Your task to perform on an android device: Open maps Image 0: 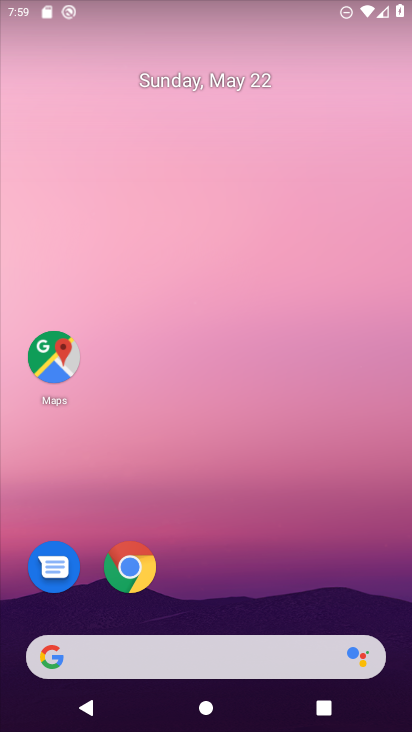
Step 0: click (46, 356)
Your task to perform on an android device: Open maps Image 1: 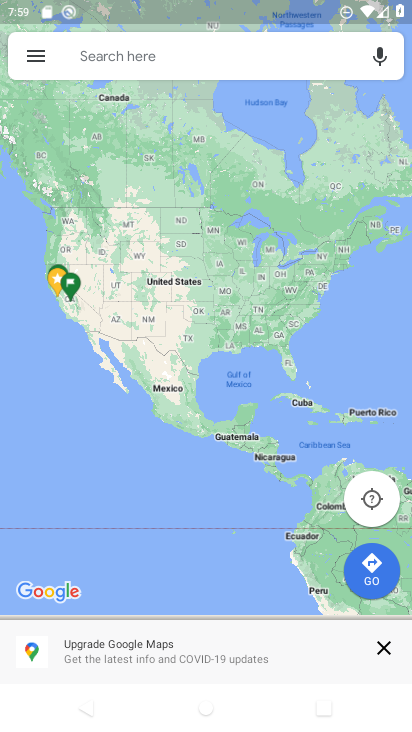
Step 1: task complete